Your task to perform on an android device: Go to internet settings Image 0: 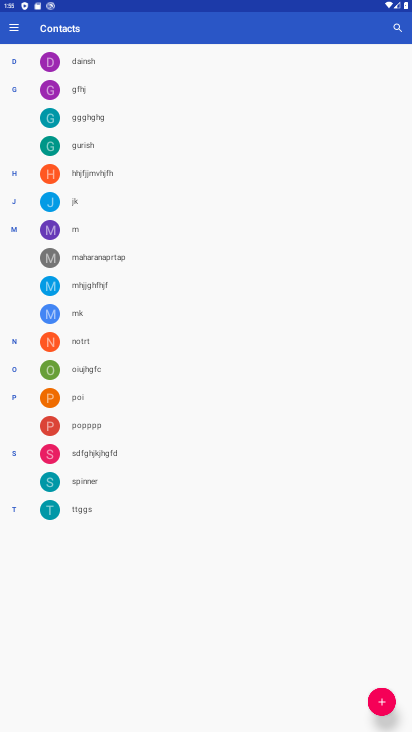
Step 0: press home button
Your task to perform on an android device: Go to internet settings Image 1: 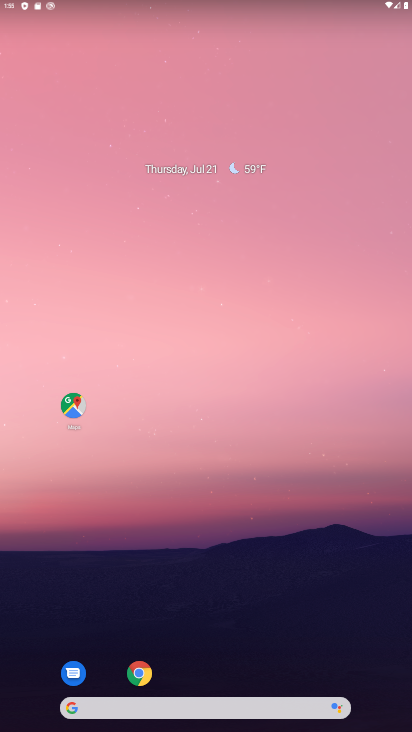
Step 1: drag from (193, 702) to (176, 192)
Your task to perform on an android device: Go to internet settings Image 2: 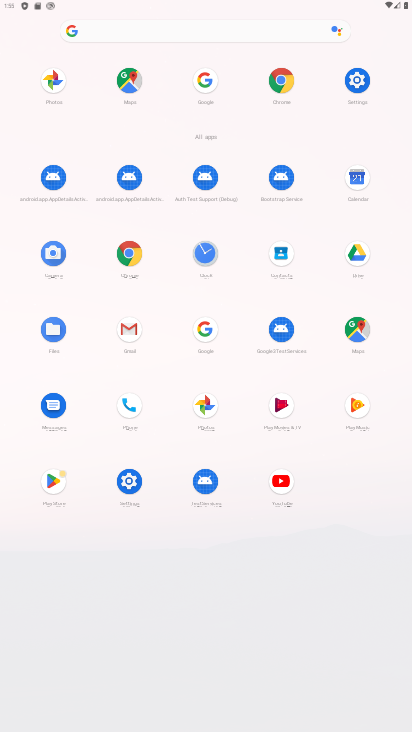
Step 2: click (359, 80)
Your task to perform on an android device: Go to internet settings Image 3: 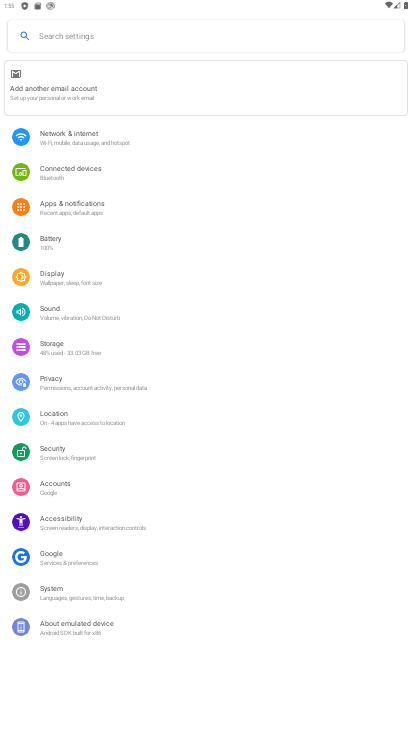
Step 3: click (56, 138)
Your task to perform on an android device: Go to internet settings Image 4: 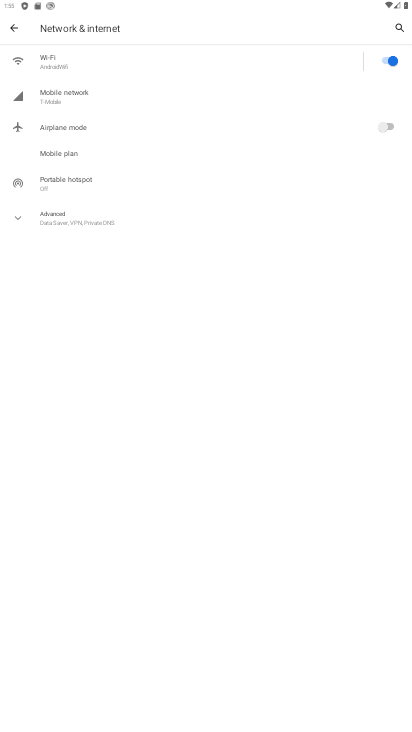
Step 4: task complete